Your task to perform on an android device: Search for vegetarian restaurants on Maps Image 0: 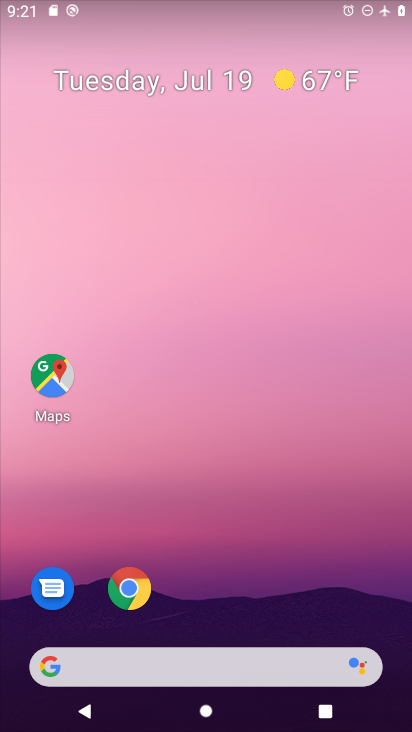
Step 0: drag from (319, 574) to (333, 71)
Your task to perform on an android device: Search for vegetarian restaurants on Maps Image 1: 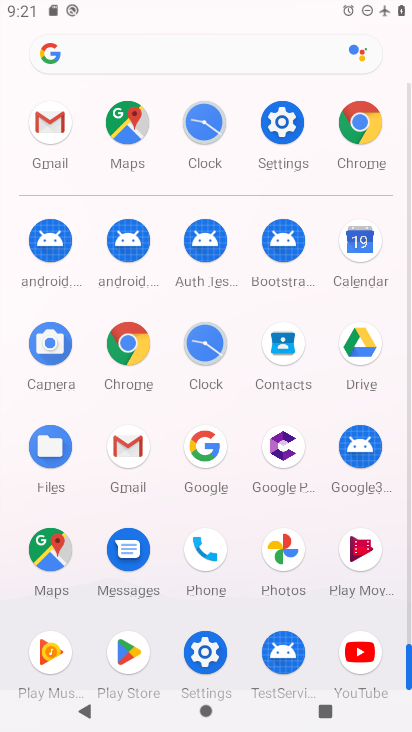
Step 1: click (61, 554)
Your task to perform on an android device: Search for vegetarian restaurants on Maps Image 2: 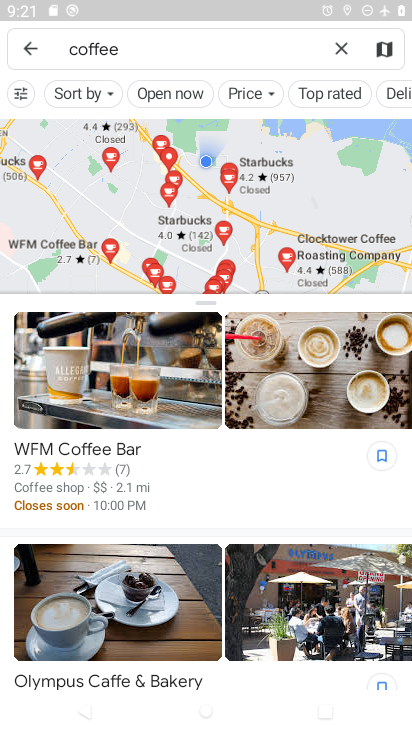
Step 2: press back button
Your task to perform on an android device: Search for vegetarian restaurants on Maps Image 3: 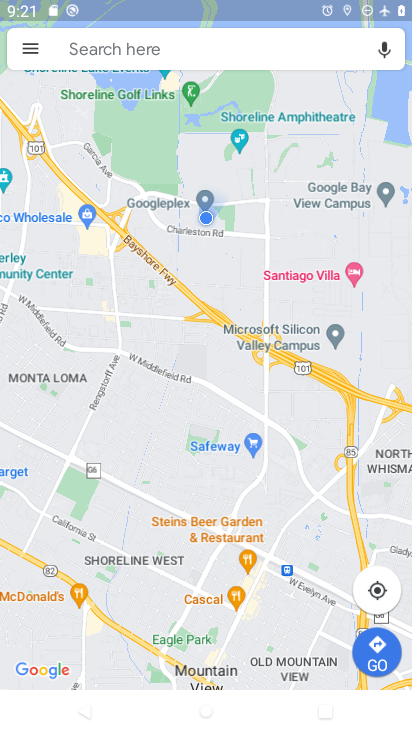
Step 3: click (279, 52)
Your task to perform on an android device: Search for vegetarian restaurants on Maps Image 4: 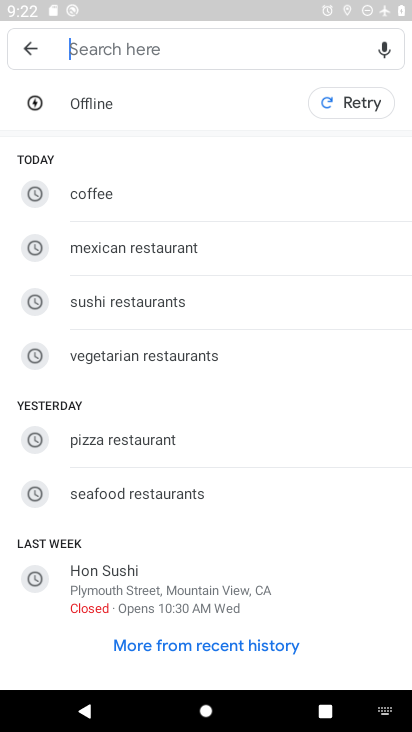
Step 4: type "vegetrain restaurants"
Your task to perform on an android device: Search for vegetarian restaurants on Maps Image 5: 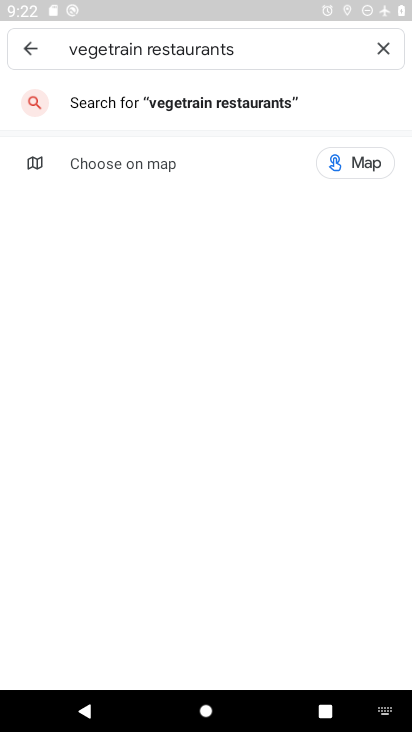
Step 5: task complete